Your task to perform on an android device: uninstall "Grab" Image 0: 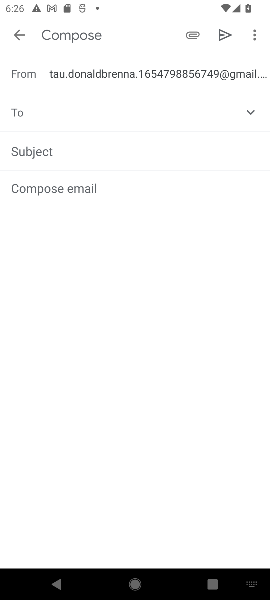
Step 0: press home button
Your task to perform on an android device: uninstall "Grab" Image 1: 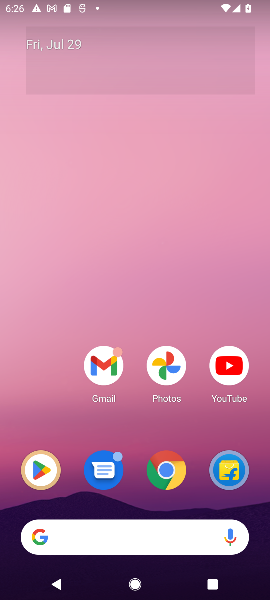
Step 1: press home button
Your task to perform on an android device: uninstall "Grab" Image 2: 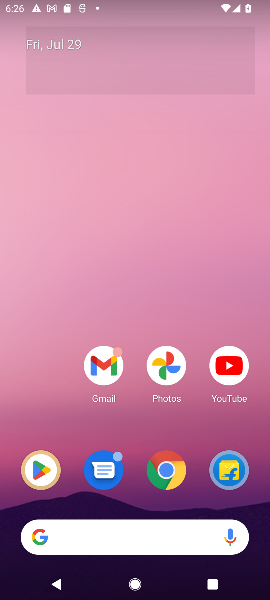
Step 2: drag from (193, 419) to (146, 53)
Your task to perform on an android device: uninstall "Grab" Image 3: 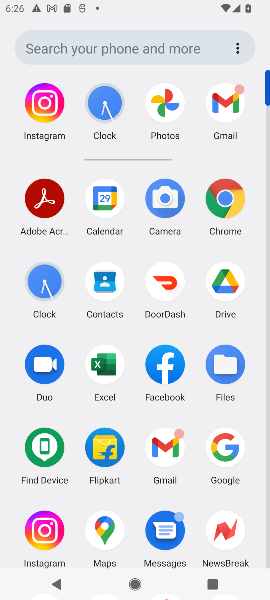
Step 3: drag from (185, 486) to (196, 87)
Your task to perform on an android device: uninstall "Grab" Image 4: 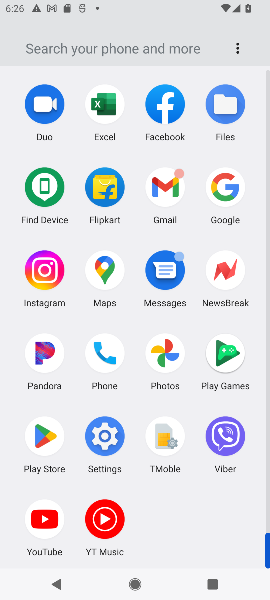
Step 4: click (34, 439)
Your task to perform on an android device: uninstall "Grab" Image 5: 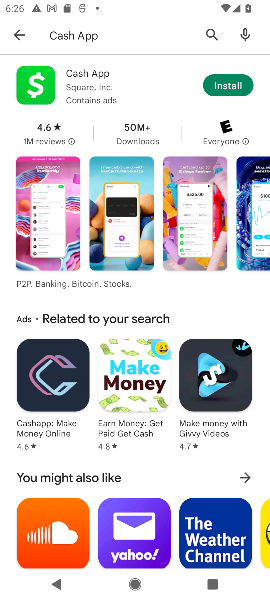
Step 5: click (147, 46)
Your task to perform on an android device: uninstall "Grab" Image 6: 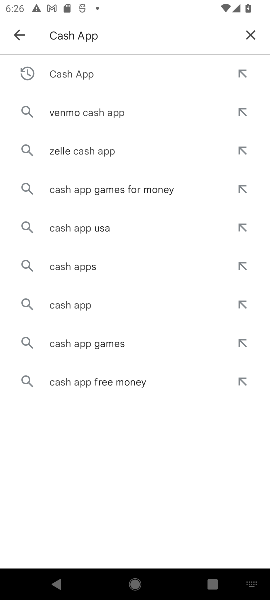
Step 6: click (243, 37)
Your task to perform on an android device: uninstall "Grab" Image 7: 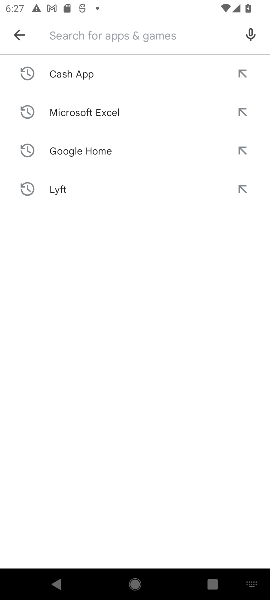
Step 7: type "Grab"
Your task to perform on an android device: uninstall "Grab" Image 8: 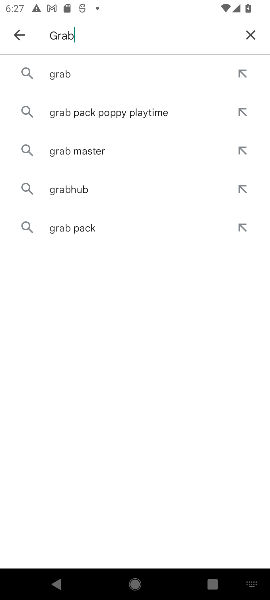
Step 8: press enter
Your task to perform on an android device: uninstall "Grab" Image 9: 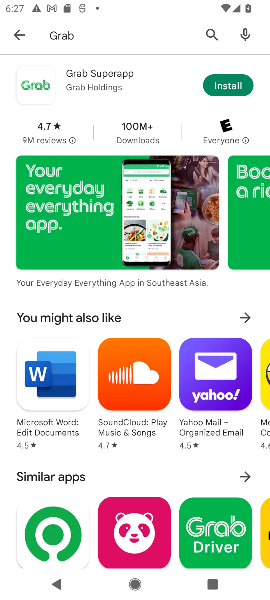
Step 9: task complete